Your task to perform on an android device: open a bookmark in the chrome app Image 0: 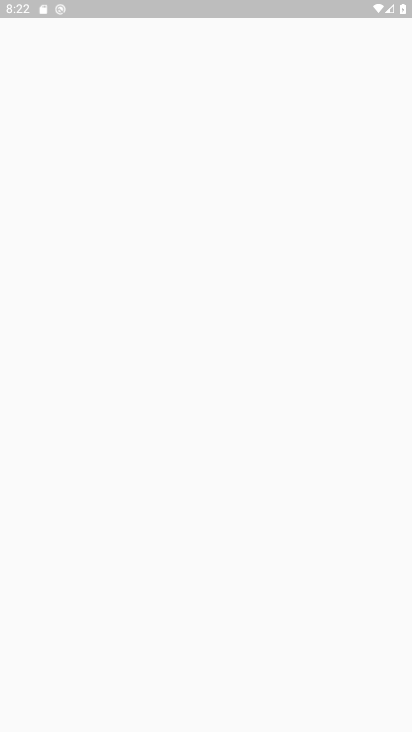
Step 0: press home button
Your task to perform on an android device: open a bookmark in the chrome app Image 1: 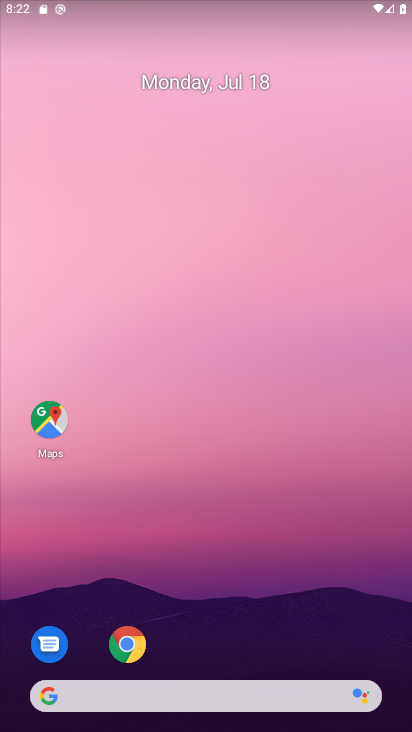
Step 1: click (131, 667)
Your task to perform on an android device: open a bookmark in the chrome app Image 2: 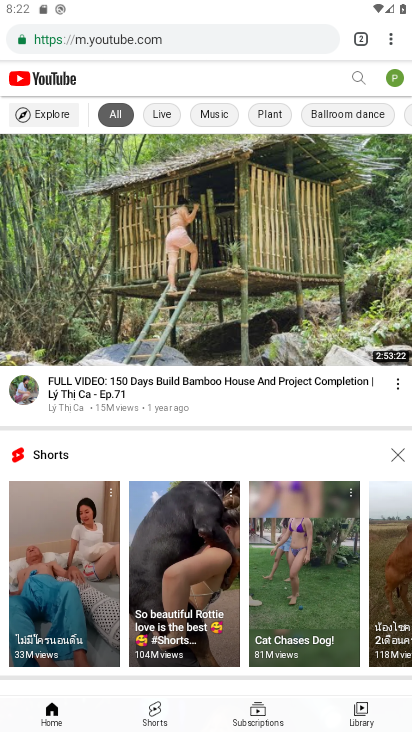
Step 2: click (395, 31)
Your task to perform on an android device: open a bookmark in the chrome app Image 3: 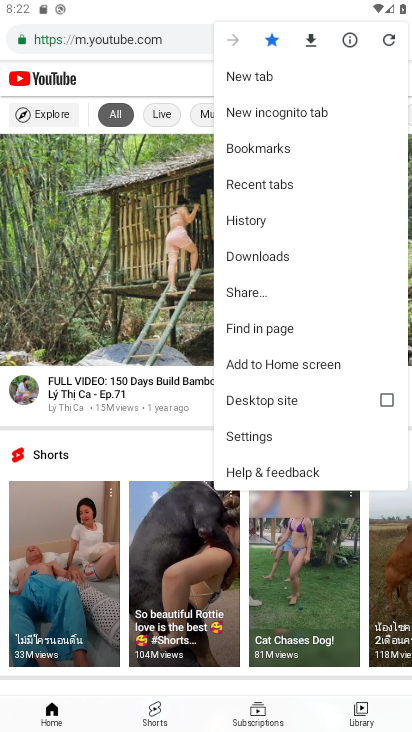
Step 3: click (258, 151)
Your task to perform on an android device: open a bookmark in the chrome app Image 4: 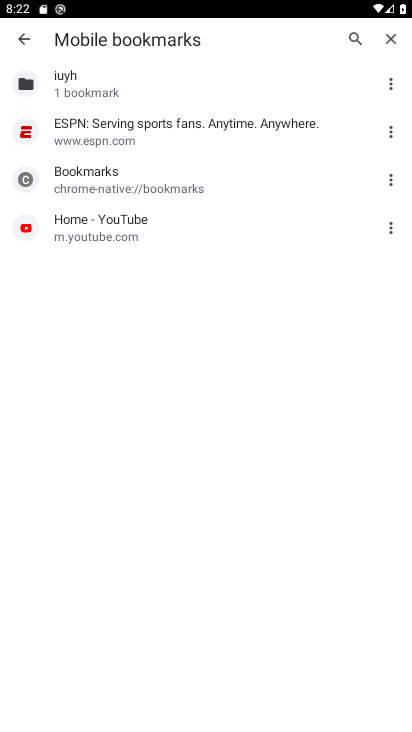
Step 4: click (146, 117)
Your task to perform on an android device: open a bookmark in the chrome app Image 5: 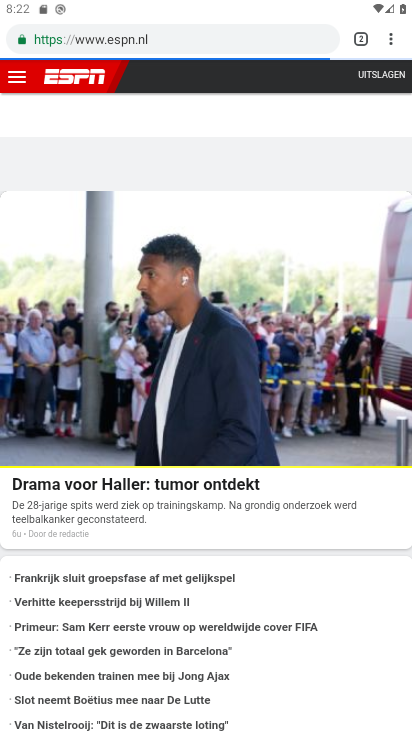
Step 5: task complete